Your task to perform on an android device: allow notifications from all sites in the chrome app Image 0: 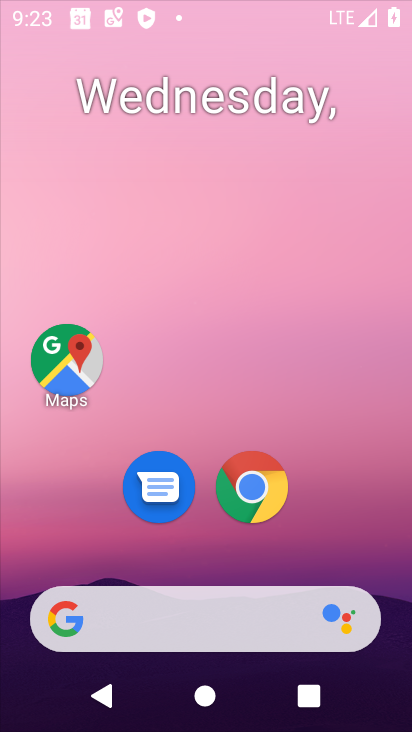
Step 0: drag from (221, 174) to (224, 124)
Your task to perform on an android device: allow notifications from all sites in the chrome app Image 1: 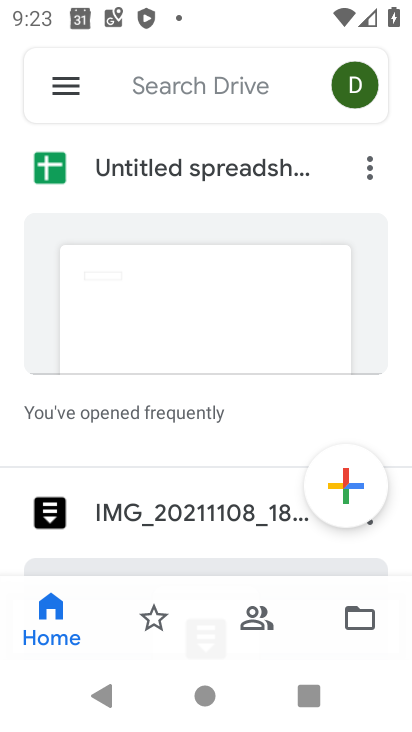
Step 1: press home button
Your task to perform on an android device: allow notifications from all sites in the chrome app Image 2: 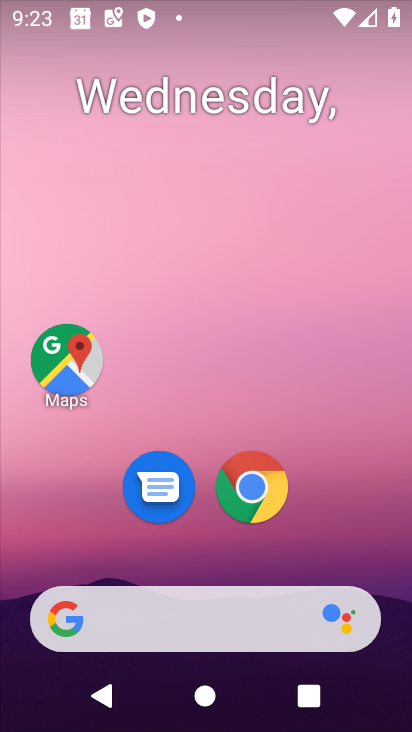
Step 2: drag from (278, 647) to (226, 292)
Your task to perform on an android device: allow notifications from all sites in the chrome app Image 3: 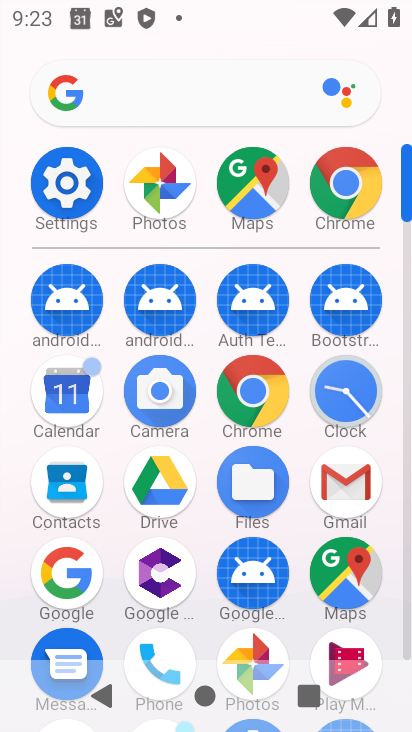
Step 3: click (346, 205)
Your task to perform on an android device: allow notifications from all sites in the chrome app Image 4: 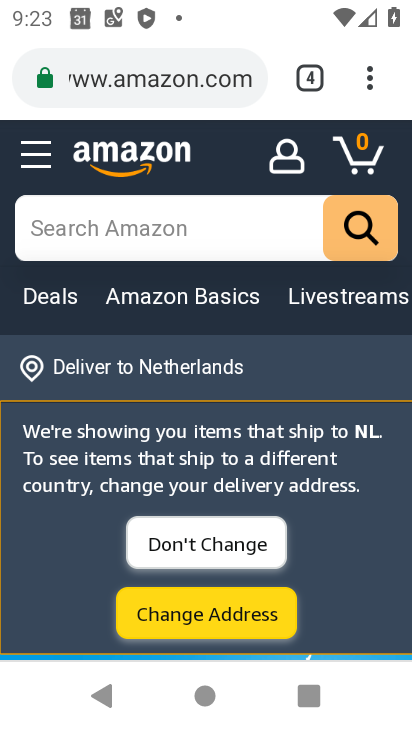
Step 4: click (373, 113)
Your task to perform on an android device: allow notifications from all sites in the chrome app Image 5: 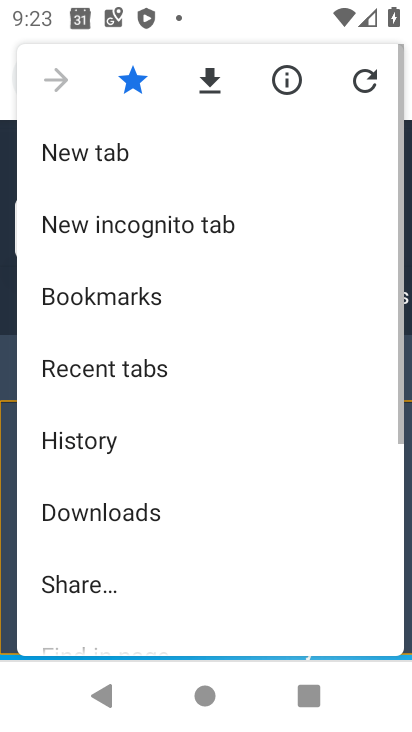
Step 5: drag from (176, 595) to (225, 275)
Your task to perform on an android device: allow notifications from all sites in the chrome app Image 6: 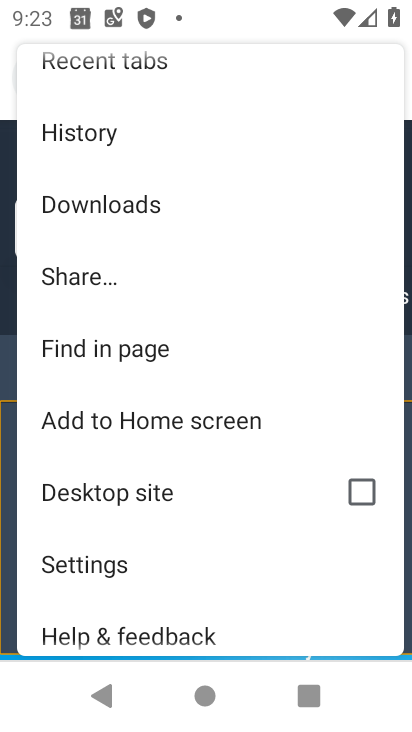
Step 6: click (139, 555)
Your task to perform on an android device: allow notifications from all sites in the chrome app Image 7: 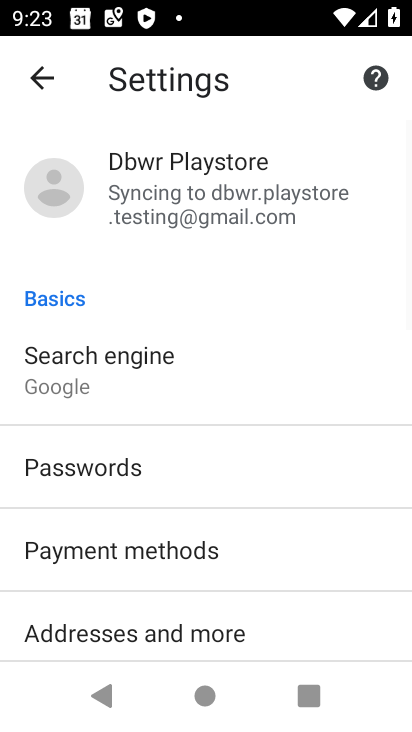
Step 7: drag from (188, 509) to (210, 156)
Your task to perform on an android device: allow notifications from all sites in the chrome app Image 8: 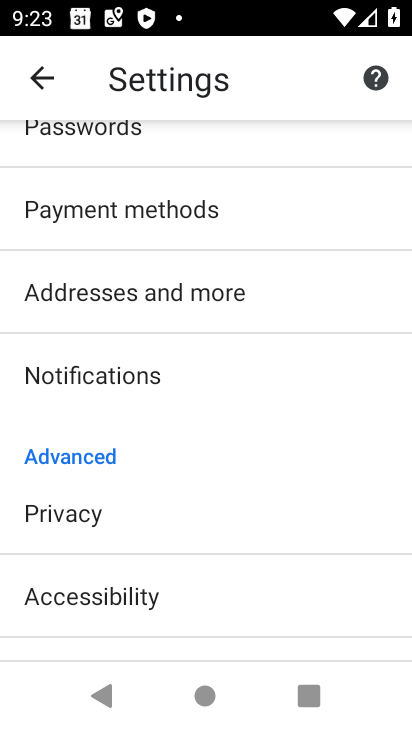
Step 8: drag from (111, 564) to (143, 314)
Your task to perform on an android device: allow notifications from all sites in the chrome app Image 9: 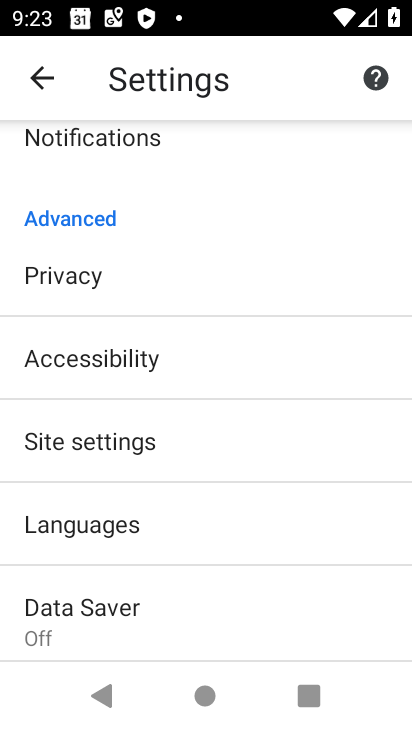
Step 9: drag from (95, 591) to (105, 551)
Your task to perform on an android device: allow notifications from all sites in the chrome app Image 10: 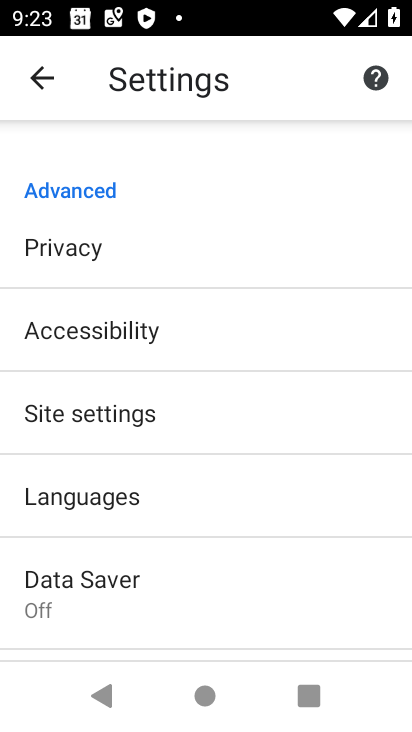
Step 10: click (91, 422)
Your task to perform on an android device: allow notifications from all sites in the chrome app Image 11: 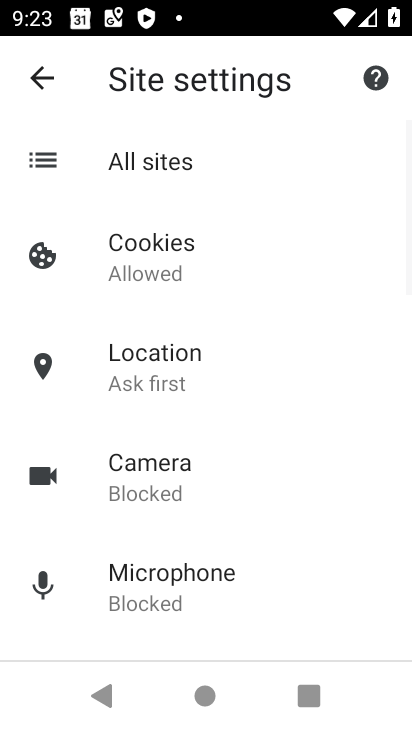
Step 11: click (155, 180)
Your task to perform on an android device: allow notifications from all sites in the chrome app Image 12: 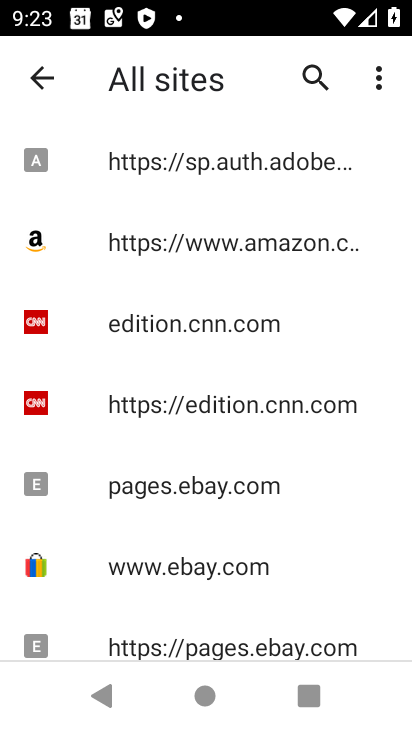
Step 12: task complete